Your task to perform on an android device: Go to Google Image 0: 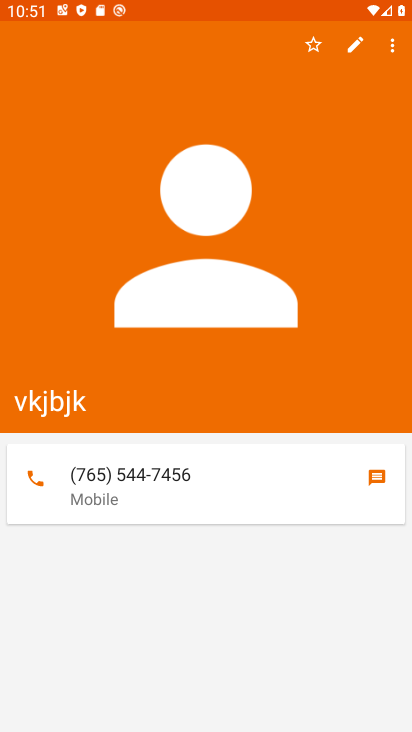
Step 0: press home button
Your task to perform on an android device: Go to Google Image 1: 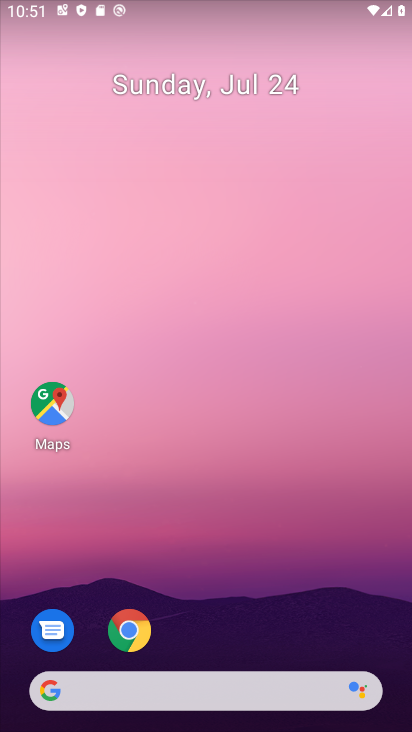
Step 1: drag from (180, 624) to (214, 113)
Your task to perform on an android device: Go to Google Image 2: 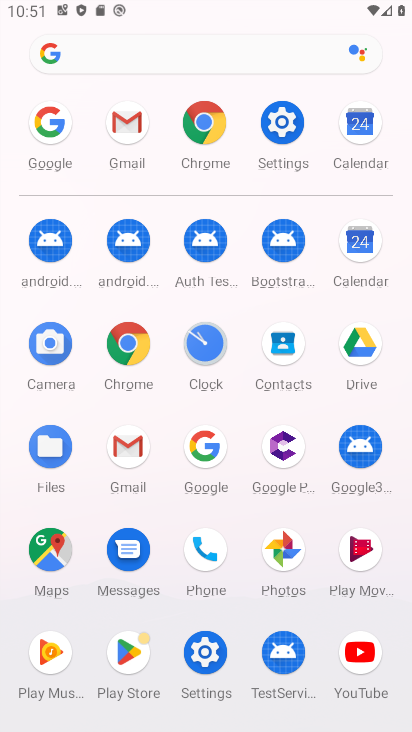
Step 2: click (206, 450)
Your task to perform on an android device: Go to Google Image 3: 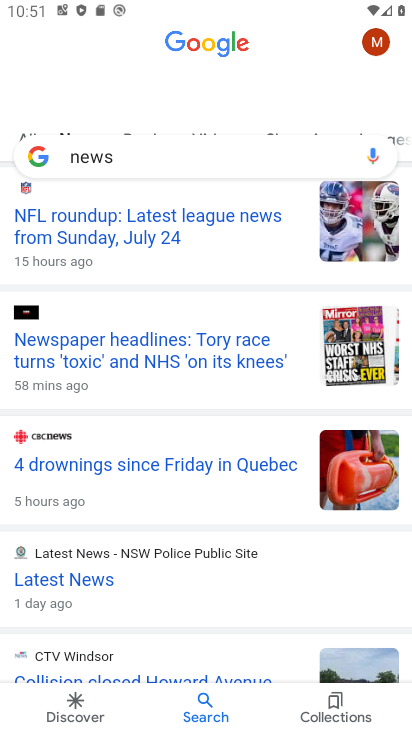
Step 3: task complete